Your task to perform on an android device: Go to sound settings Image 0: 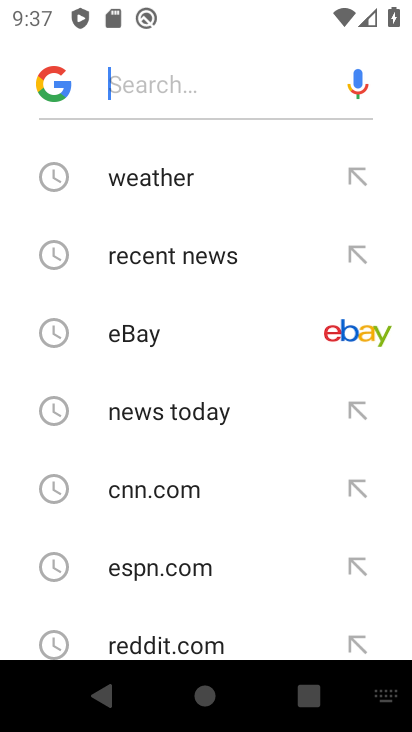
Step 0: press home button
Your task to perform on an android device: Go to sound settings Image 1: 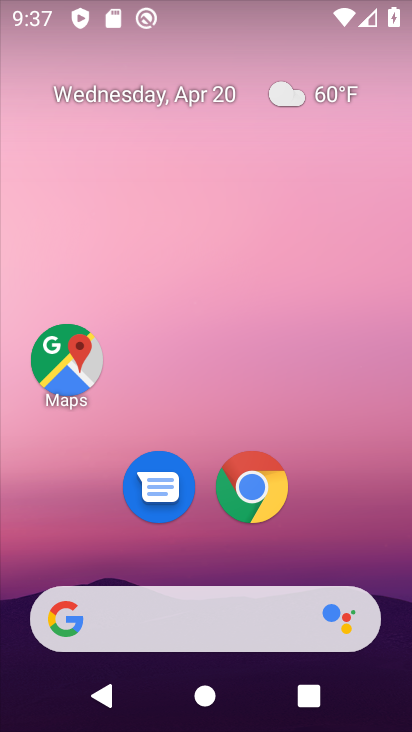
Step 1: drag from (39, 663) to (189, 277)
Your task to perform on an android device: Go to sound settings Image 2: 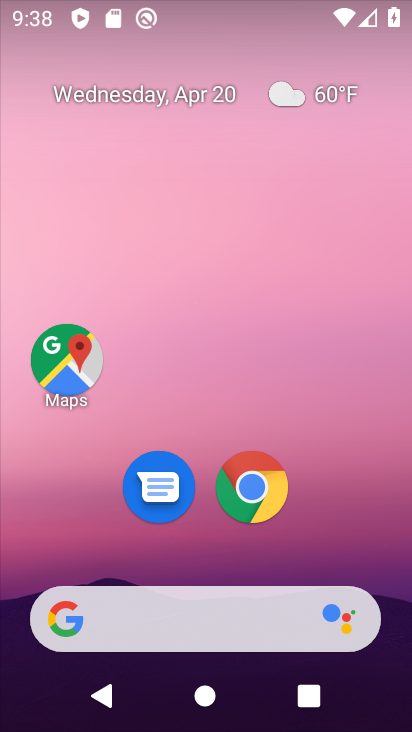
Step 2: drag from (85, 538) to (251, 266)
Your task to perform on an android device: Go to sound settings Image 3: 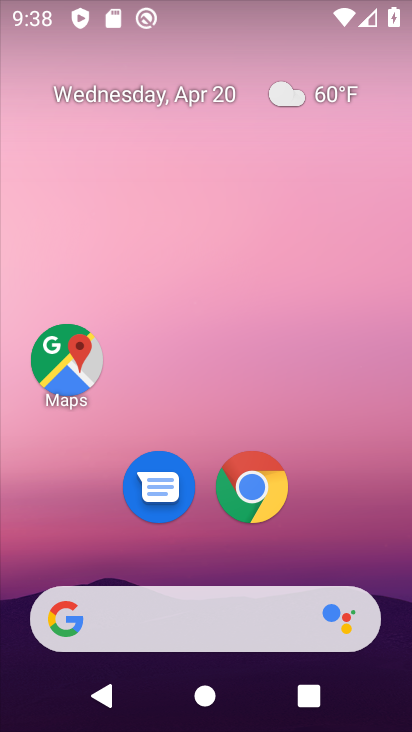
Step 3: drag from (83, 502) to (224, 279)
Your task to perform on an android device: Go to sound settings Image 4: 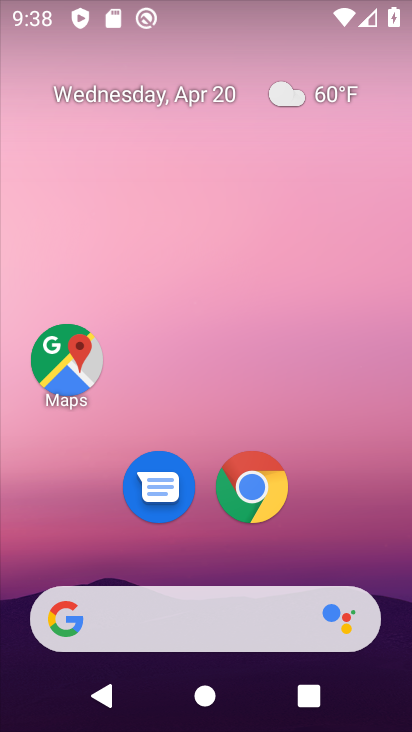
Step 4: drag from (15, 703) to (183, 322)
Your task to perform on an android device: Go to sound settings Image 5: 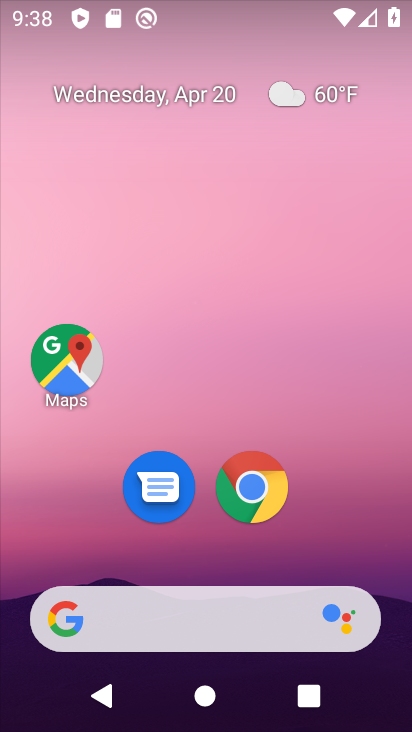
Step 5: drag from (88, 495) to (216, 264)
Your task to perform on an android device: Go to sound settings Image 6: 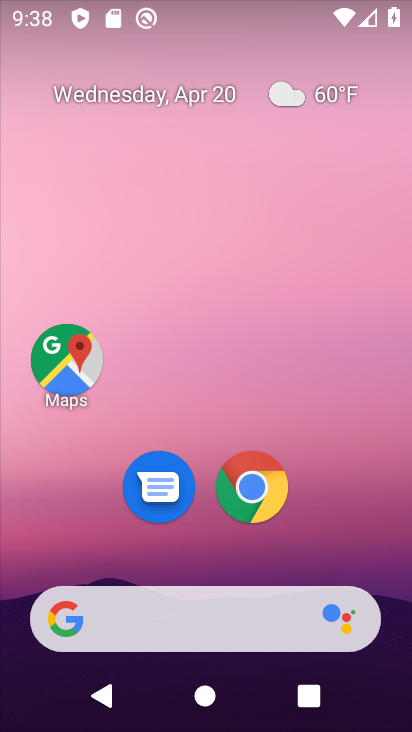
Step 6: drag from (93, 590) to (259, 237)
Your task to perform on an android device: Go to sound settings Image 7: 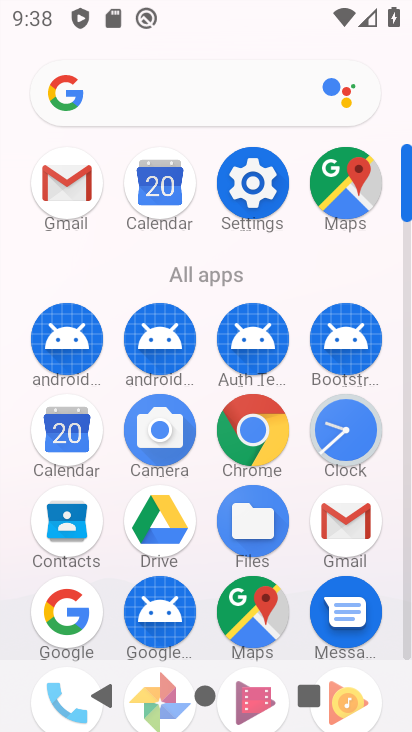
Step 7: click (250, 195)
Your task to perform on an android device: Go to sound settings Image 8: 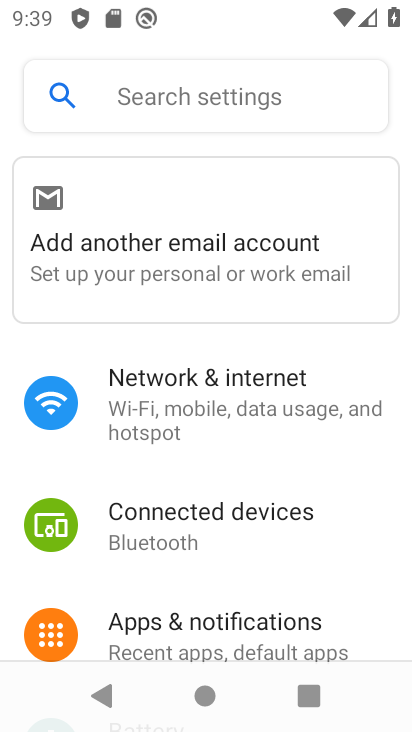
Step 8: drag from (173, 646) to (260, 400)
Your task to perform on an android device: Go to sound settings Image 9: 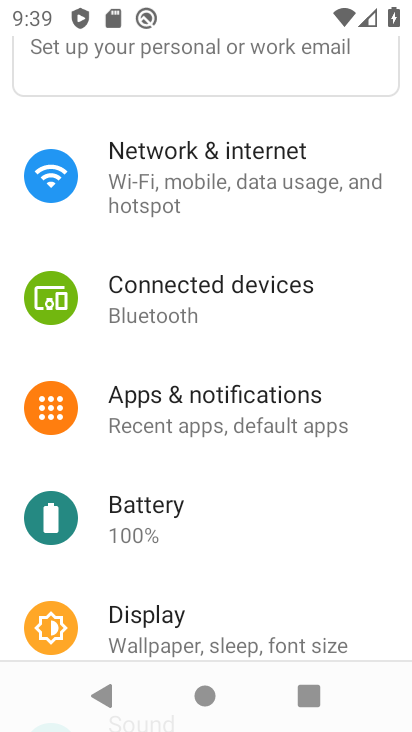
Step 9: drag from (113, 635) to (219, 372)
Your task to perform on an android device: Go to sound settings Image 10: 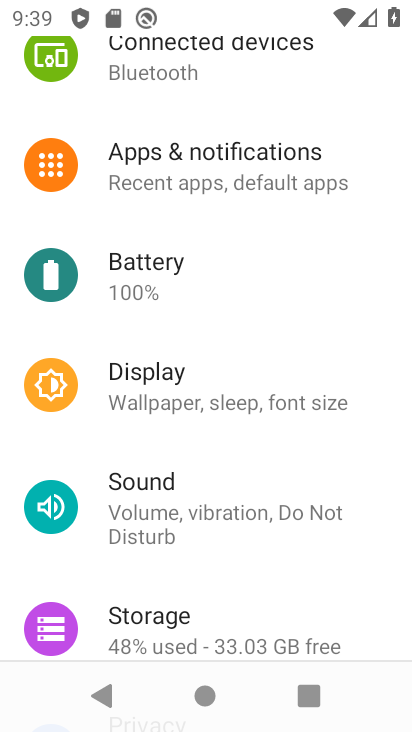
Step 10: click (215, 490)
Your task to perform on an android device: Go to sound settings Image 11: 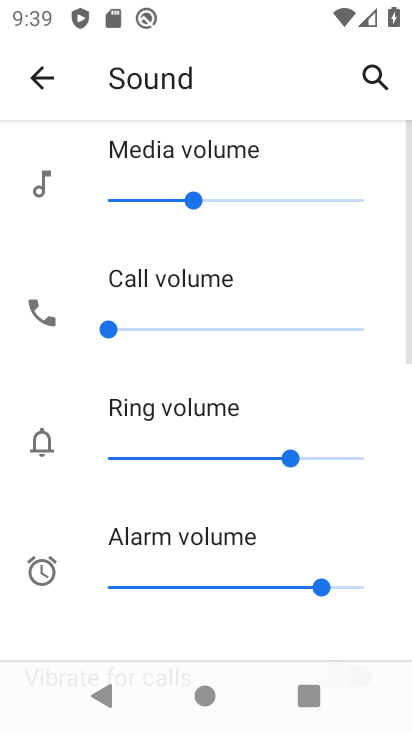
Step 11: task complete